Your task to perform on an android device: check battery use Image 0: 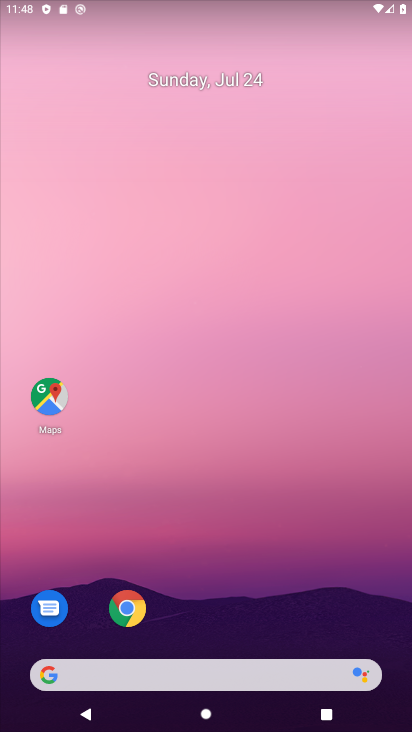
Step 0: drag from (22, 660) to (273, 65)
Your task to perform on an android device: check battery use Image 1: 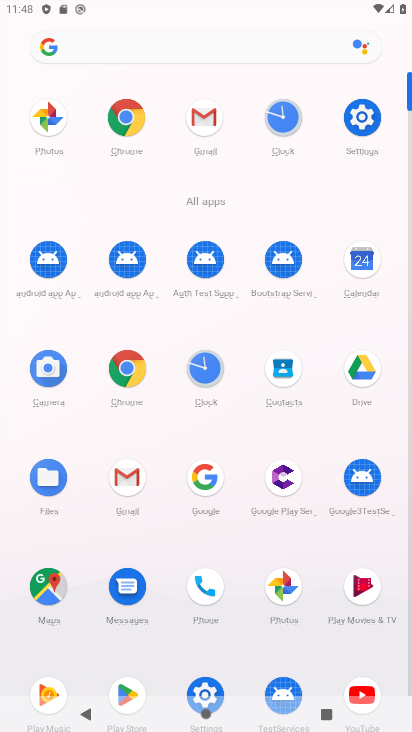
Step 1: click (130, 191)
Your task to perform on an android device: check battery use Image 2: 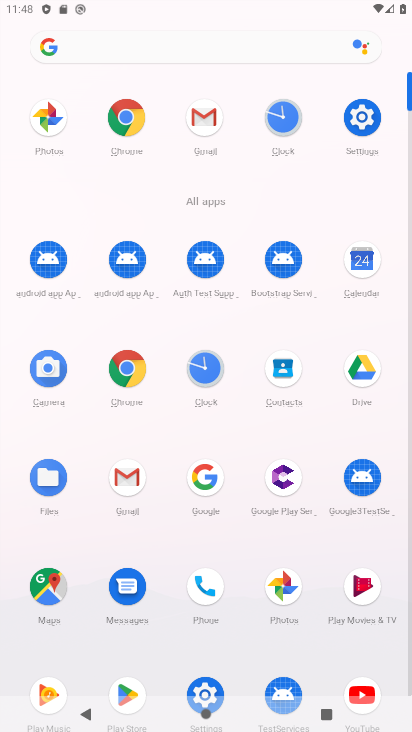
Step 2: click (362, 115)
Your task to perform on an android device: check battery use Image 3: 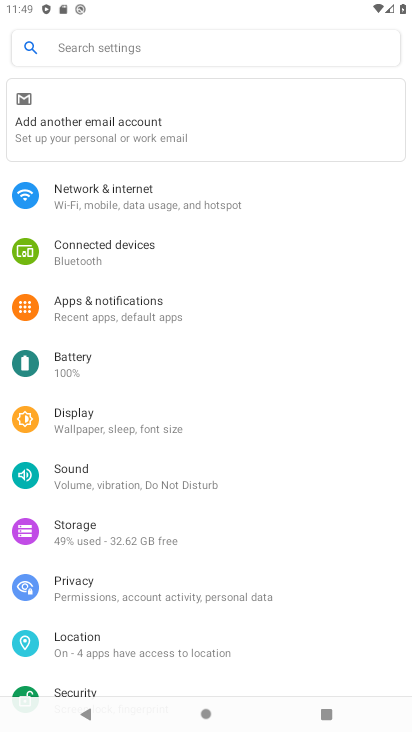
Step 3: click (38, 363)
Your task to perform on an android device: check battery use Image 4: 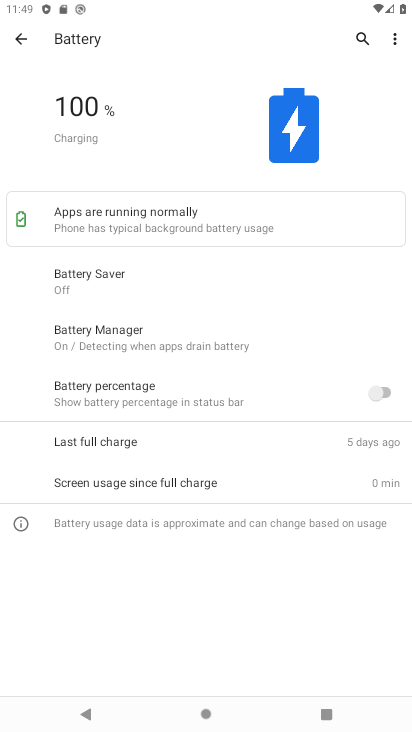
Step 4: task complete